Your task to perform on an android device: turn off javascript in the chrome app Image 0: 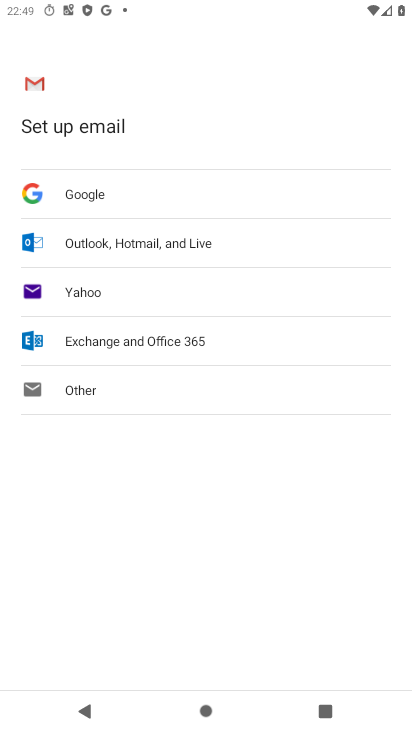
Step 0: press home button
Your task to perform on an android device: turn off javascript in the chrome app Image 1: 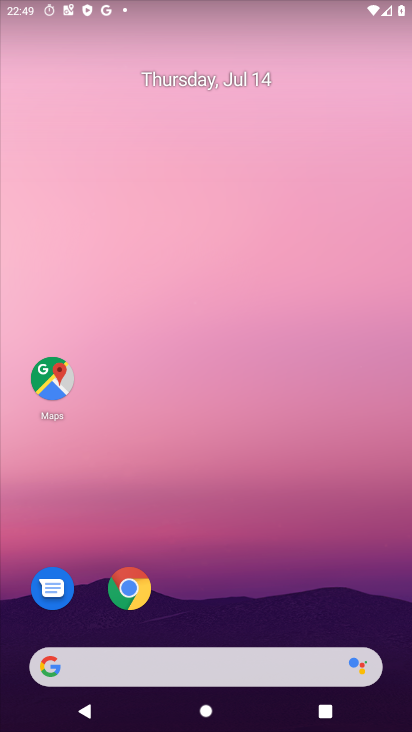
Step 1: drag from (204, 606) to (229, 145)
Your task to perform on an android device: turn off javascript in the chrome app Image 2: 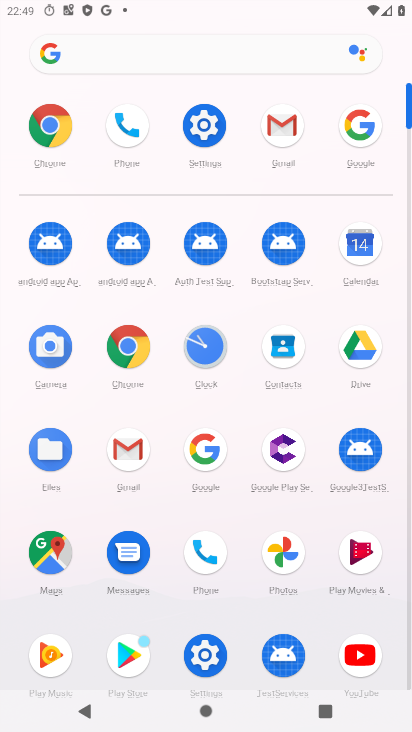
Step 2: click (126, 347)
Your task to perform on an android device: turn off javascript in the chrome app Image 3: 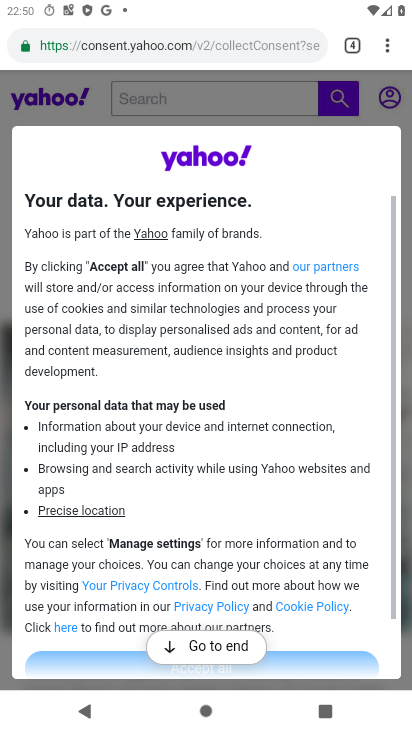
Step 3: click (383, 45)
Your task to perform on an android device: turn off javascript in the chrome app Image 4: 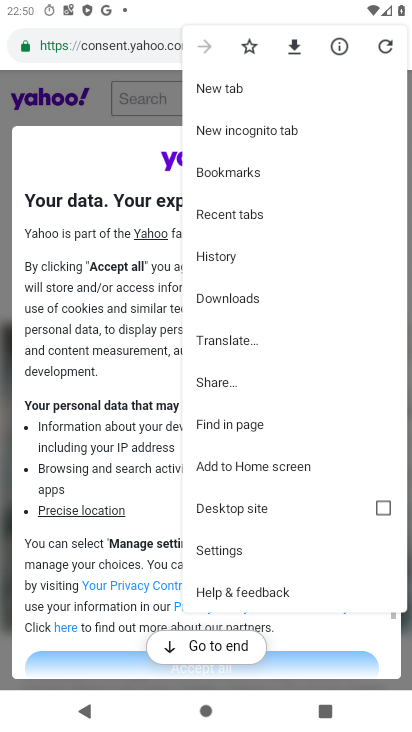
Step 4: click (247, 550)
Your task to perform on an android device: turn off javascript in the chrome app Image 5: 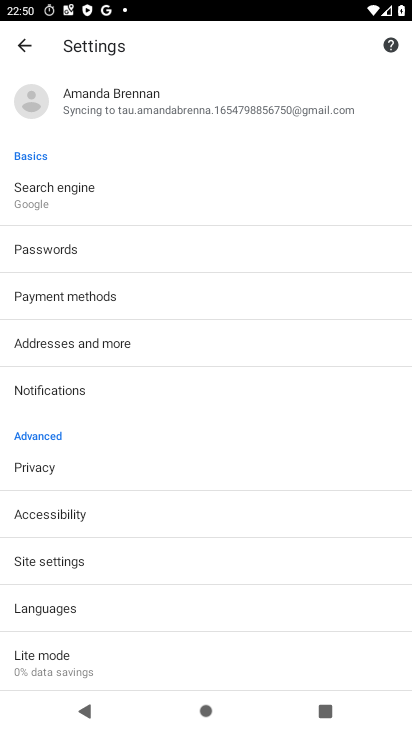
Step 5: click (83, 568)
Your task to perform on an android device: turn off javascript in the chrome app Image 6: 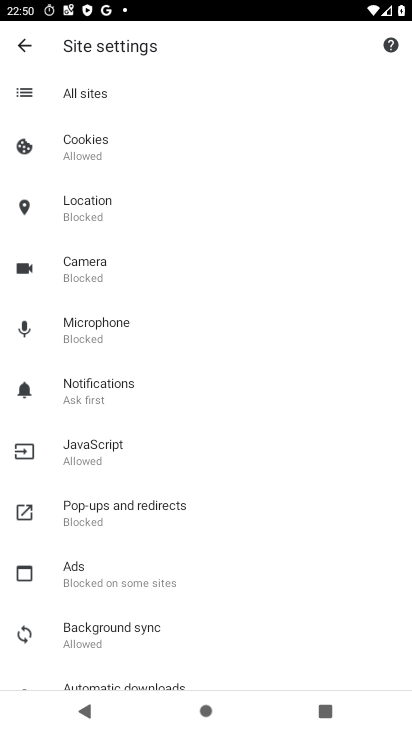
Step 6: click (130, 443)
Your task to perform on an android device: turn off javascript in the chrome app Image 7: 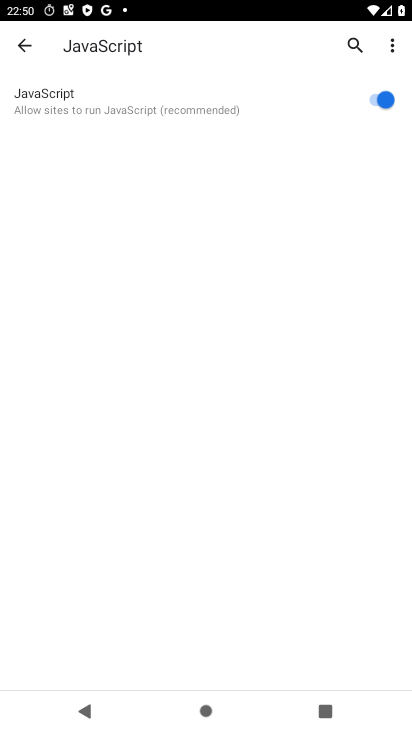
Step 7: click (383, 98)
Your task to perform on an android device: turn off javascript in the chrome app Image 8: 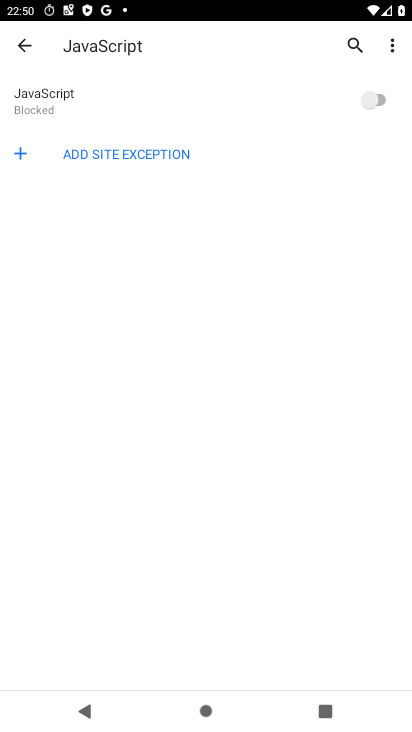
Step 8: task complete